Your task to perform on an android device: Open settings Image 0: 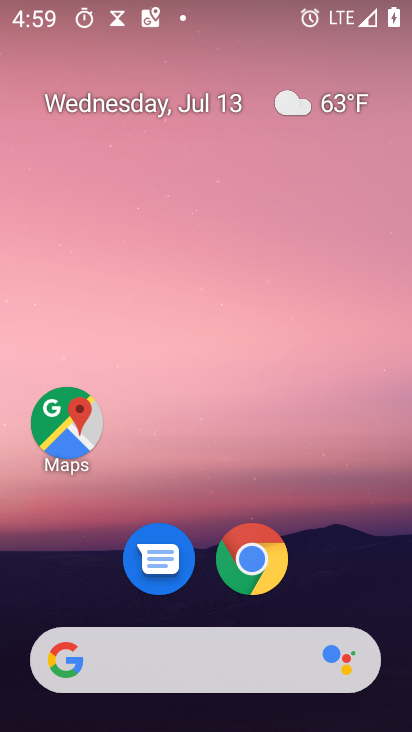
Step 0: drag from (383, 574) to (334, 149)
Your task to perform on an android device: Open settings Image 1: 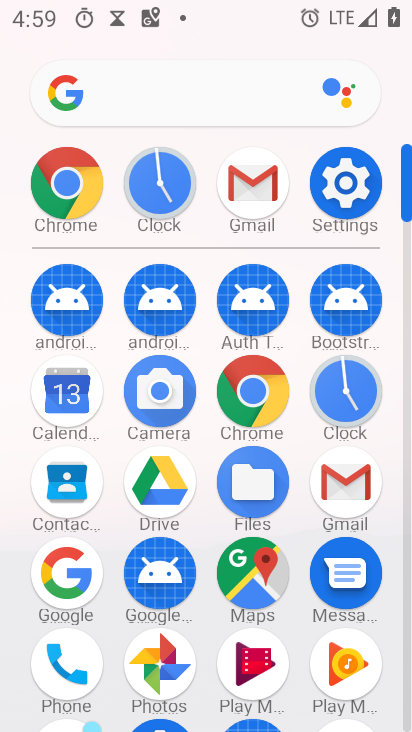
Step 1: click (355, 195)
Your task to perform on an android device: Open settings Image 2: 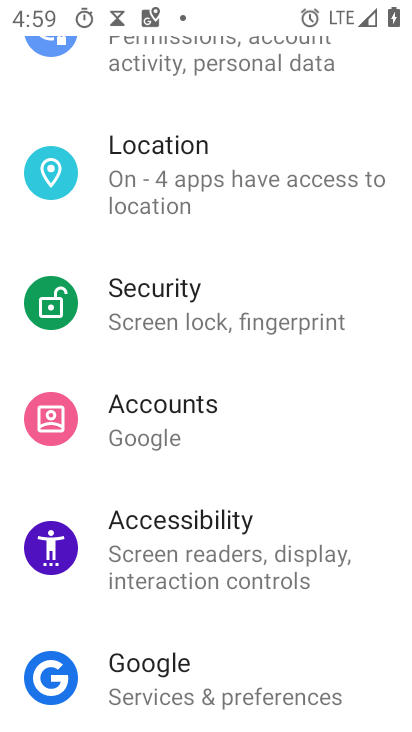
Step 2: task complete